Your task to perform on an android device: Search for a new desk on IKEA. Image 0: 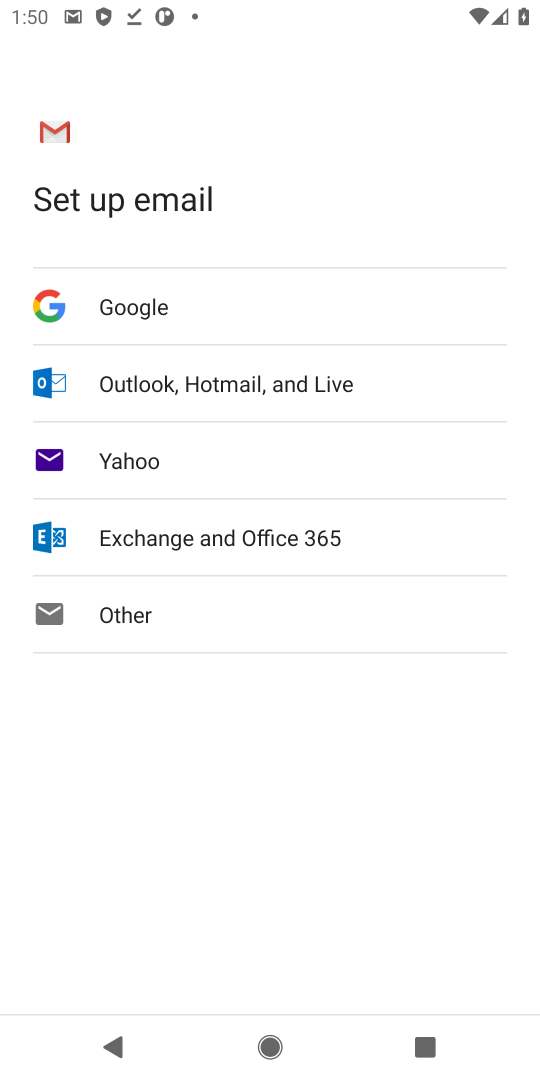
Step 0: press home button
Your task to perform on an android device: Search for a new desk on IKEA. Image 1: 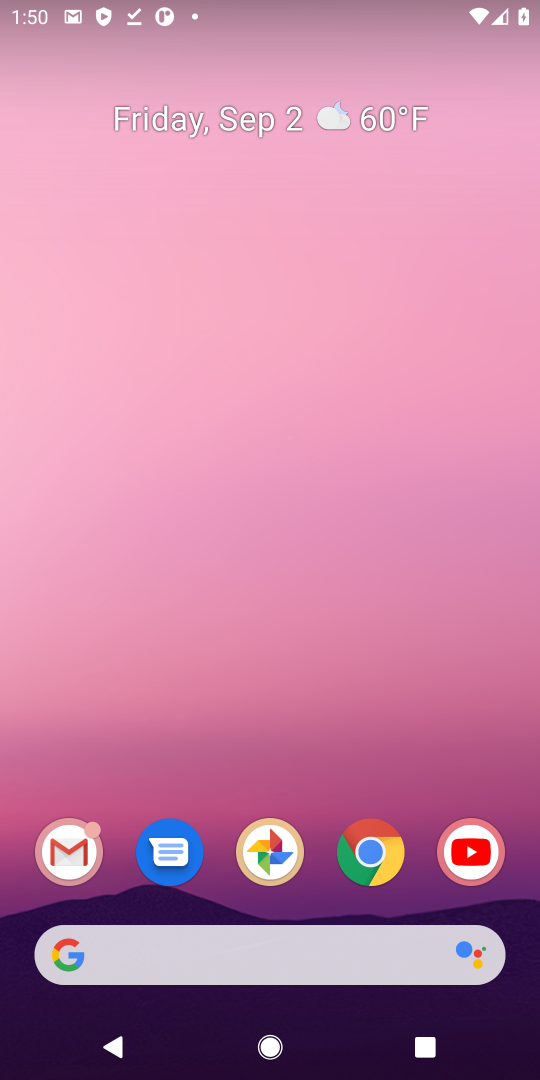
Step 1: click (341, 8)
Your task to perform on an android device: Search for a new desk on IKEA. Image 2: 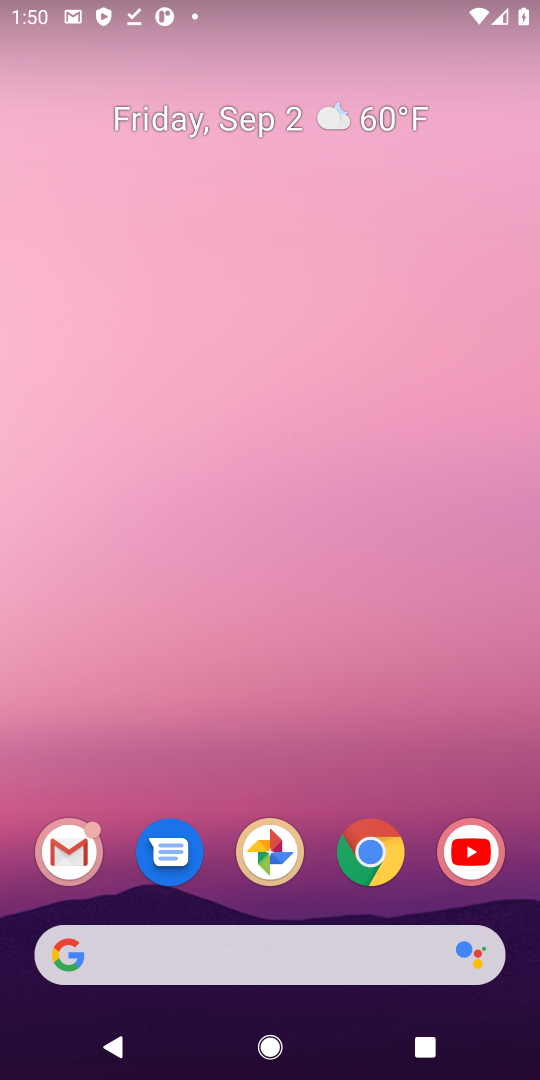
Step 2: click (326, 668)
Your task to perform on an android device: Search for a new desk on IKEA. Image 3: 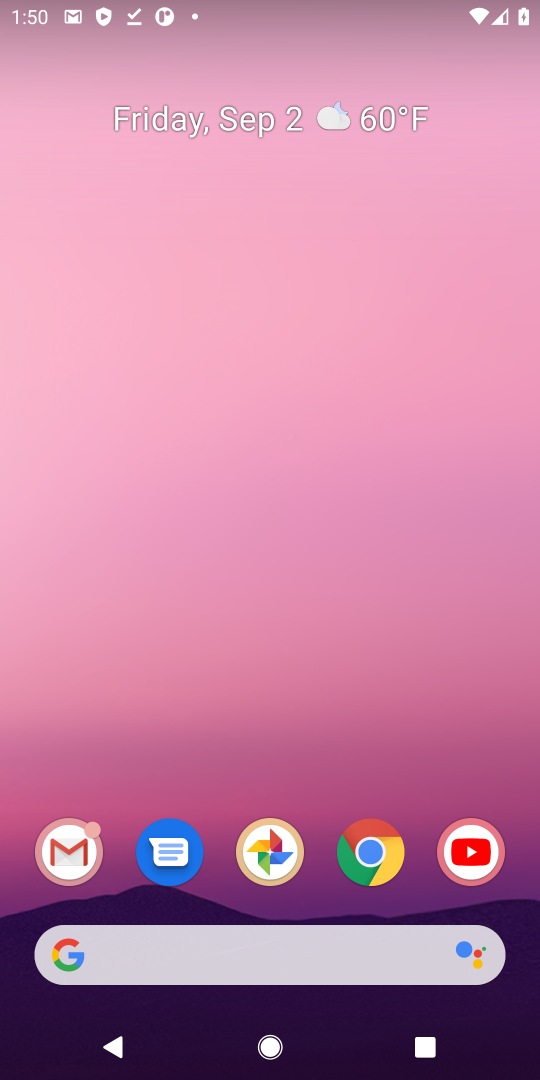
Step 3: drag from (324, 773) to (424, 16)
Your task to perform on an android device: Search for a new desk on IKEA. Image 4: 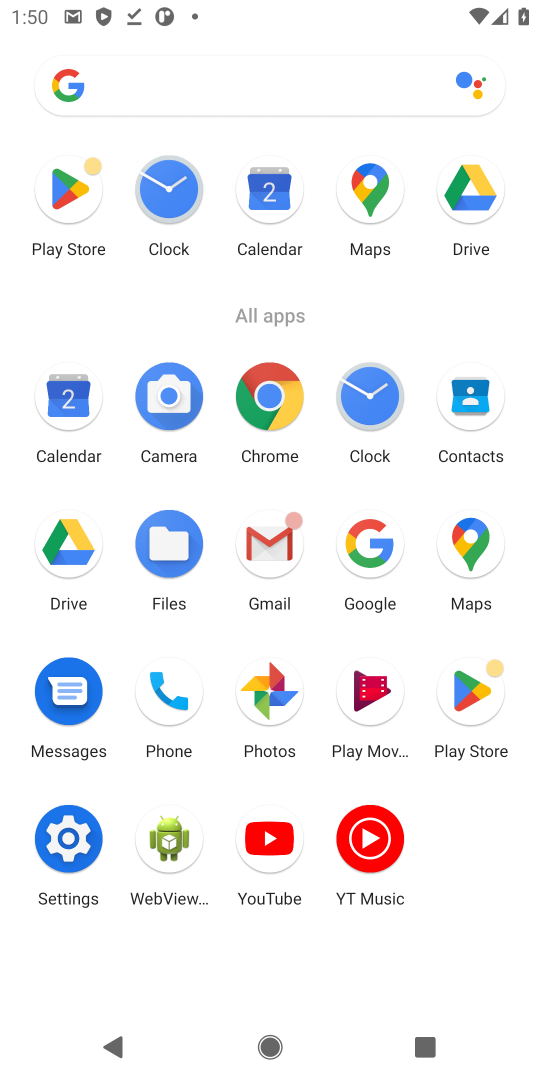
Step 4: click (280, 406)
Your task to perform on an android device: Search for a new desk on IKEA. Image 5: 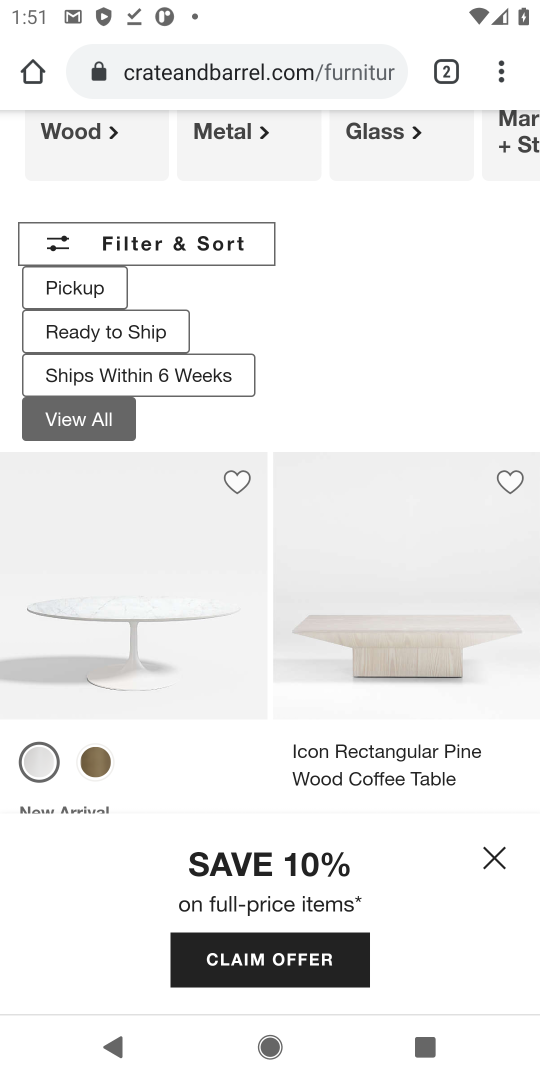
Step 5: click (302, 77)
Your task to perform on an android device: Search for a new desk on IKEA. Image 6: 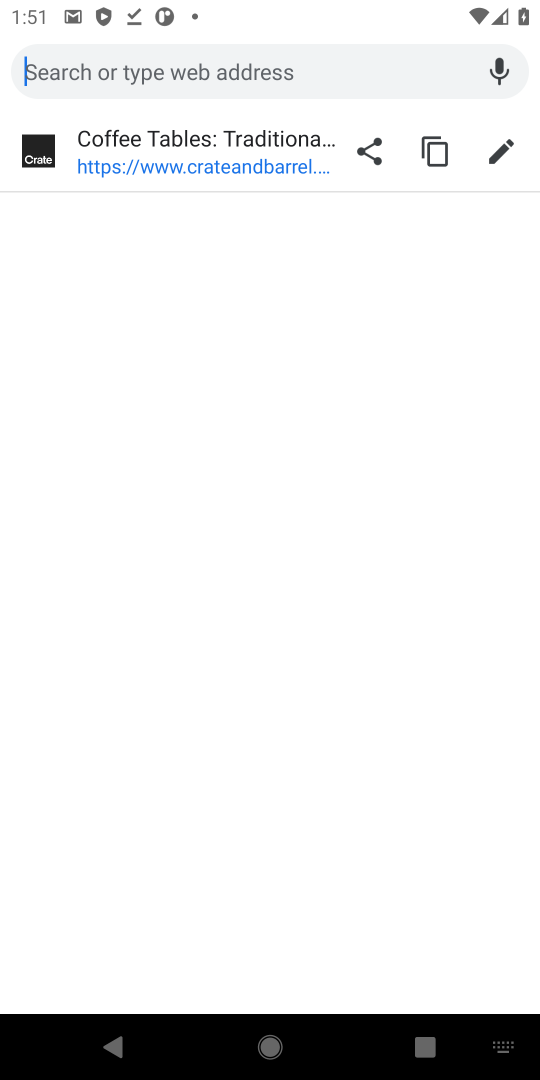
Step 6: type "new desk on IKEA"
Your task to perform on an android device: Search for a new desk on IKEA. Image 7: 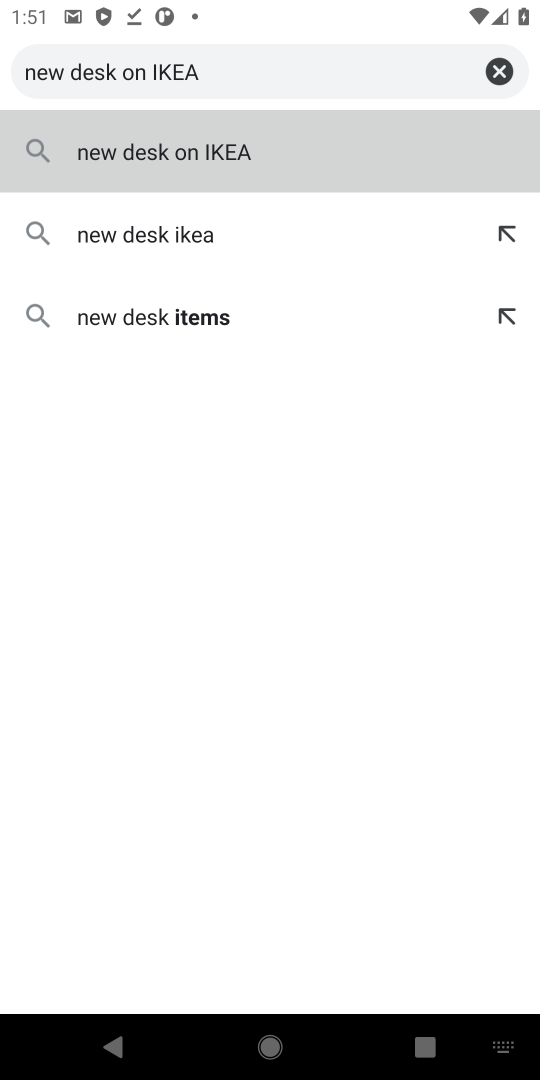
Step 7: press enter
Your task to perform on an android device: Search for a new desk on IKEA. Image 8: 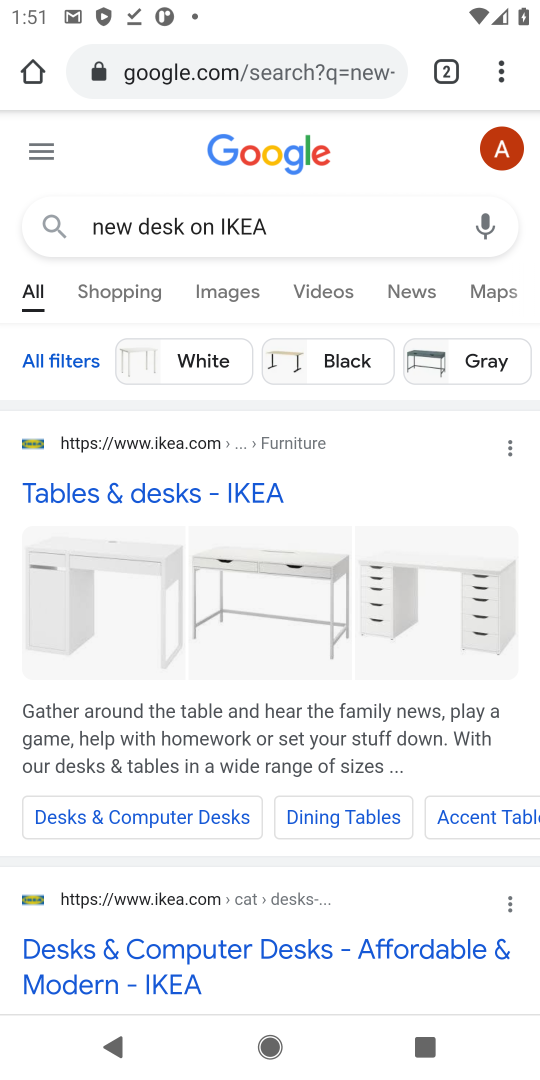
Step 8: click (137, 501)
Your task to perform on an android device: Search for a new desk on IKEA. Image 9: 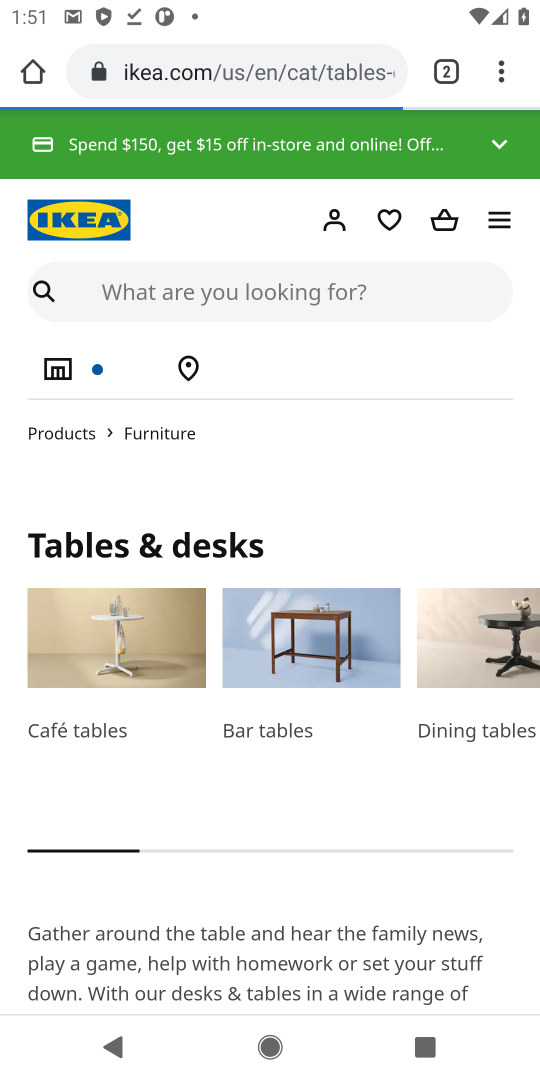
Step 9: task complete